Your task to perform on an android device: Go to settings Image 0: 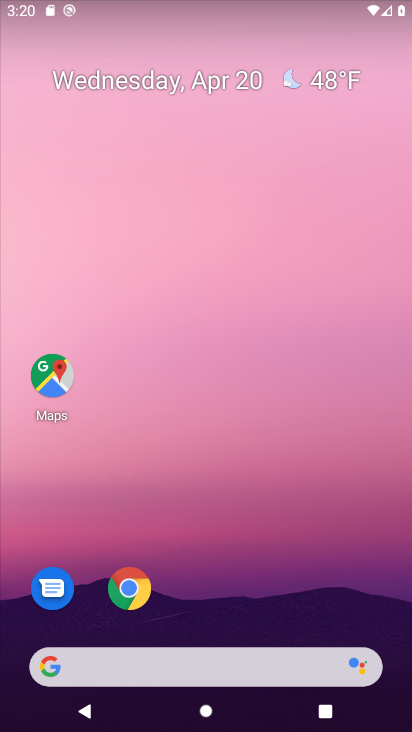
Step 0: drag from (311, 567) to (323, 158)
Your task to perform on an android device: Go to settings Image 1: 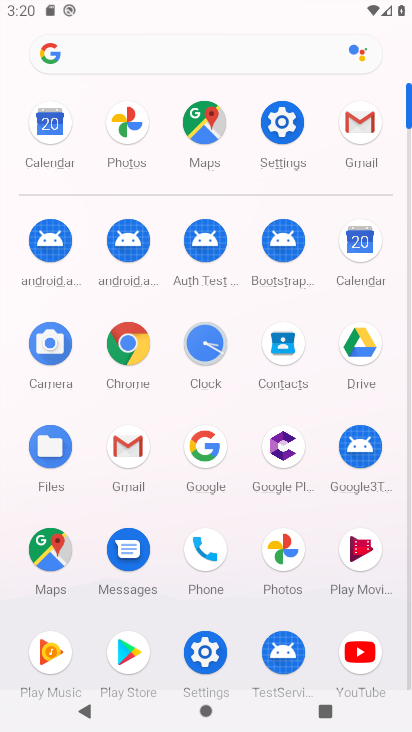
Step 1: click (275, 125)
Your task to perform on an android device: Go to settings Image 2: 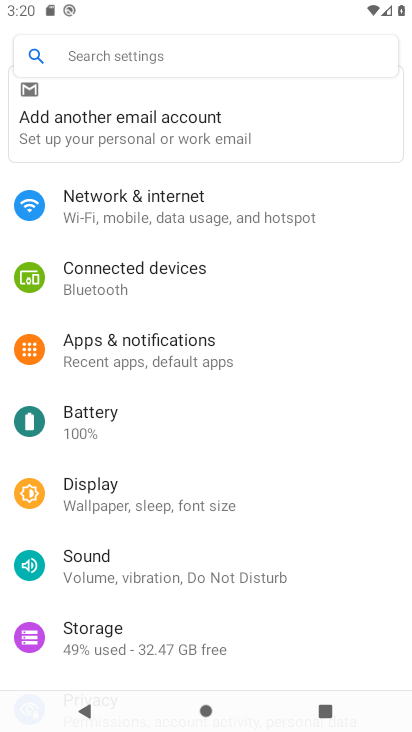
Step 2: task complete